Your task to perform on an android device: Go to calendar. Show me events next week Image 0: 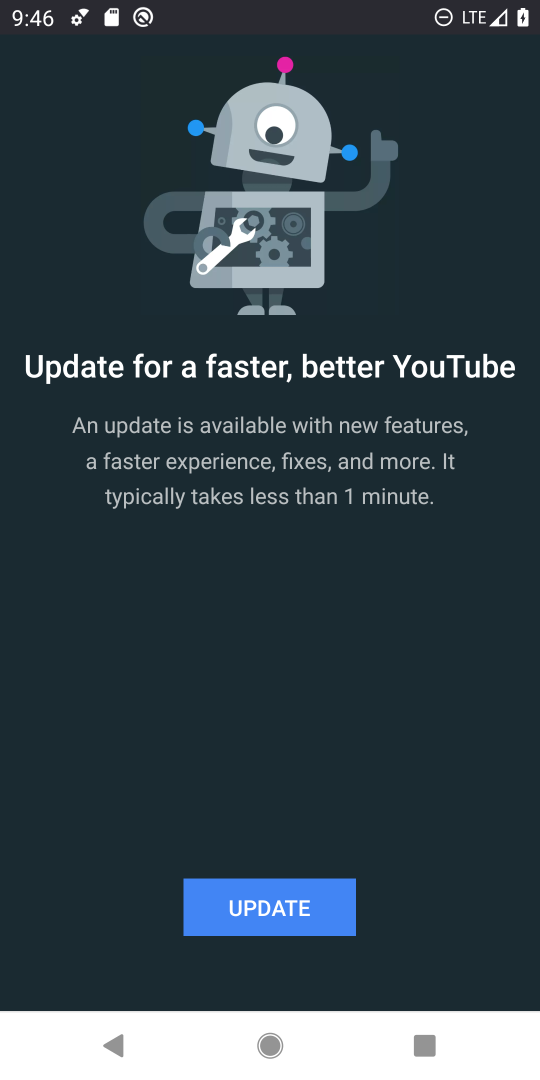
Step 0: click (279, 1046)
Your task to perform on an android device: Go to calendar. Show me events next week Image 1: 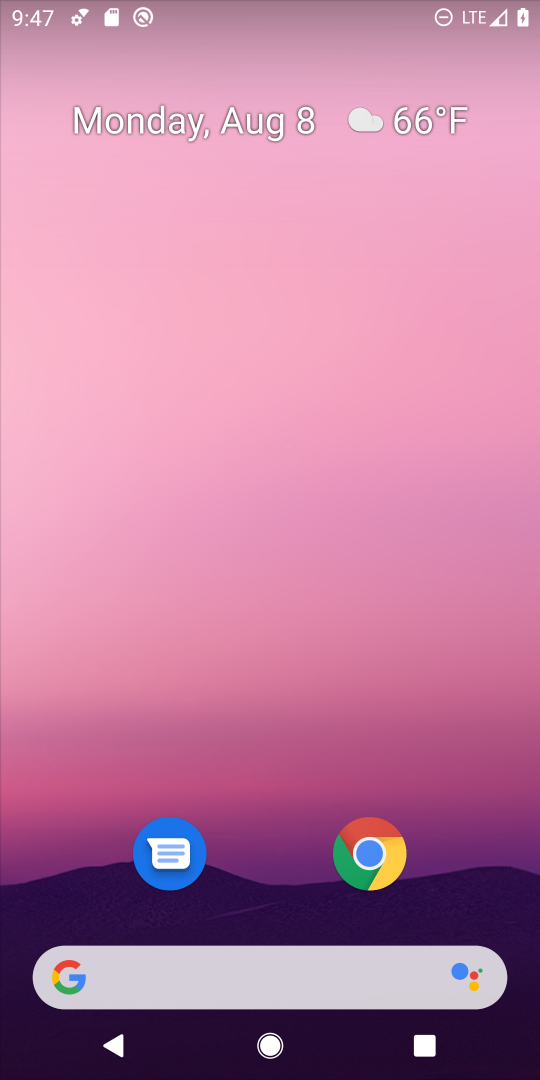
Step 1: drag from (281, 926) to (106, 272)
Your task to perform on an android device: Go to calendar. Show me events next week Image 2: 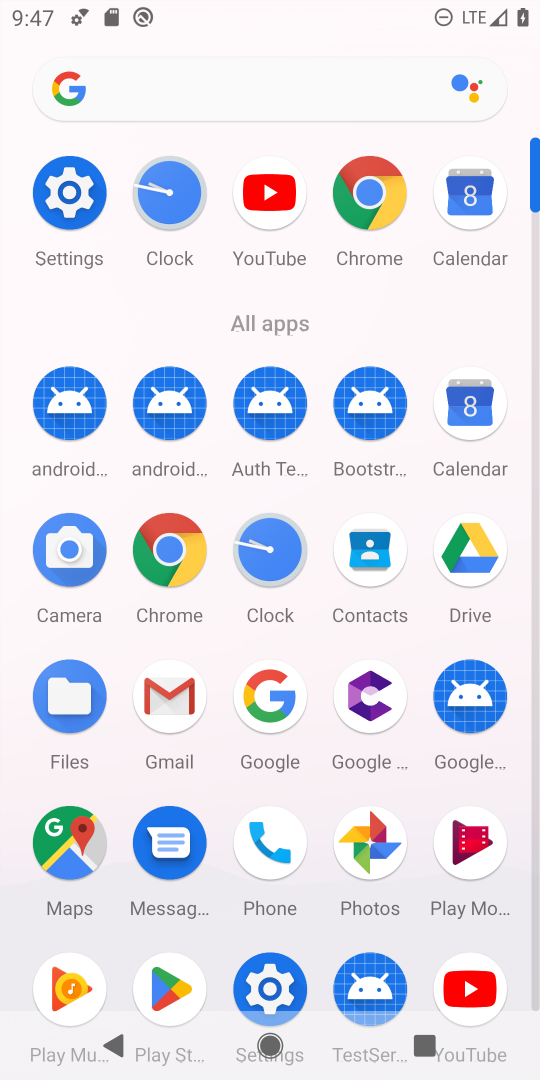
Step 2: click (484, 403)
Your task to perform on an android device: Go to calendar. Show me events next week Image 3: 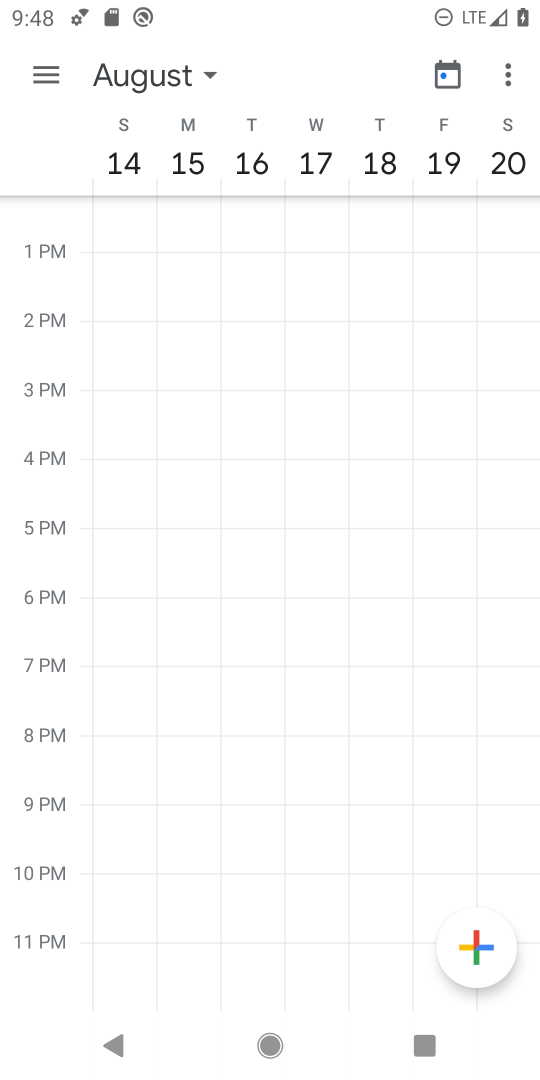
Step 3: task complete